Your task to perform on an android device: Open maps Image 0: 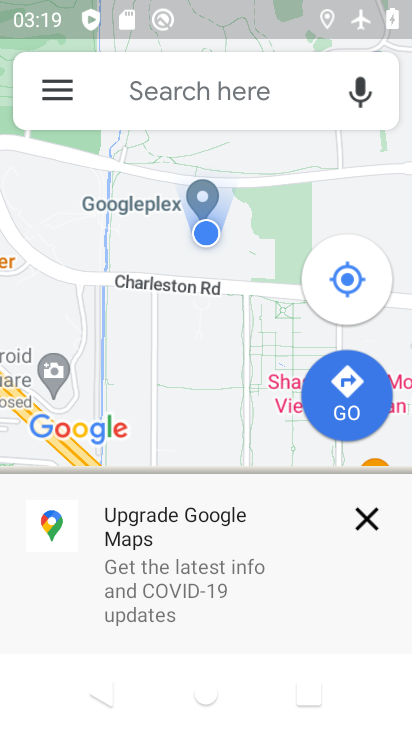
Step 0: press home button
Your task to perform on an android device: Open maps Image 1: 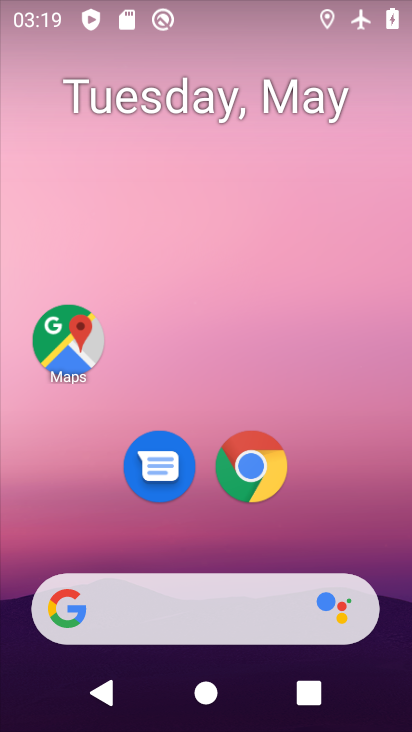
Step 1: drag from (331, 541) to (328, 313)
Your task to perform on an android device: Open maps Image 2: 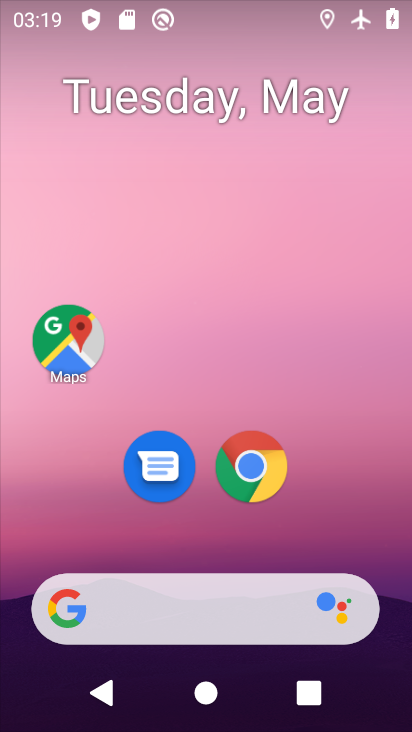
Step 2: drag from (345, 541) to (333, 269)
Your task to perform on an android device: Open maps Image 3: 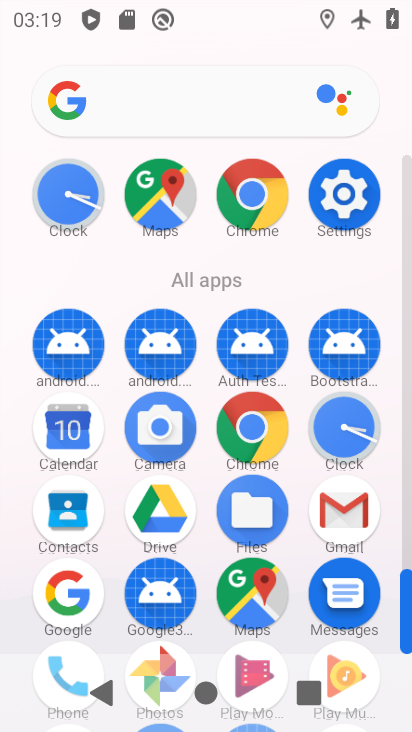
Step 3: click (79, 598)
Your task to perform on an android device: Open maps Image 4: 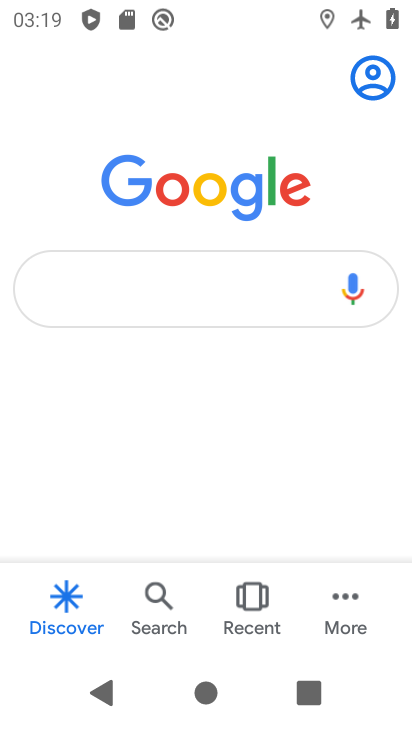
Step 4: press home button
Your task to perform on an android device: Open maps Image 5: 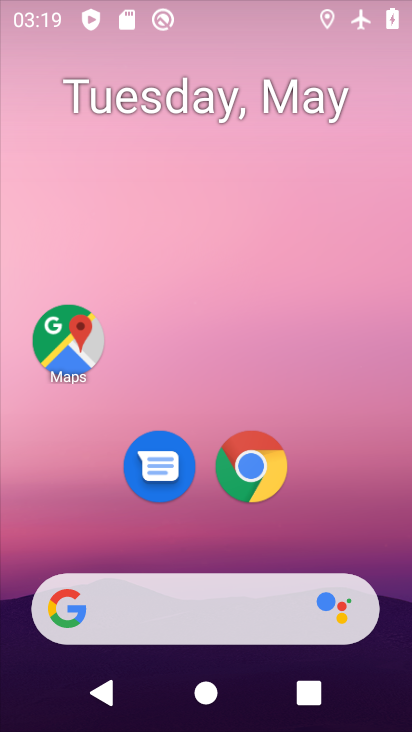
Step 5: drag from (247, 562) to (266, 237)
Your task to perform on an android device: Open maps Image 6: 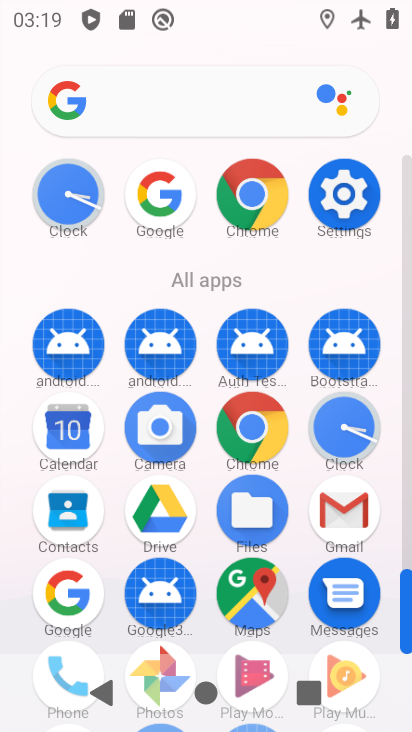
Step 6: click (262, 592)
Your task to perform on an android device: Open maps Image 7: 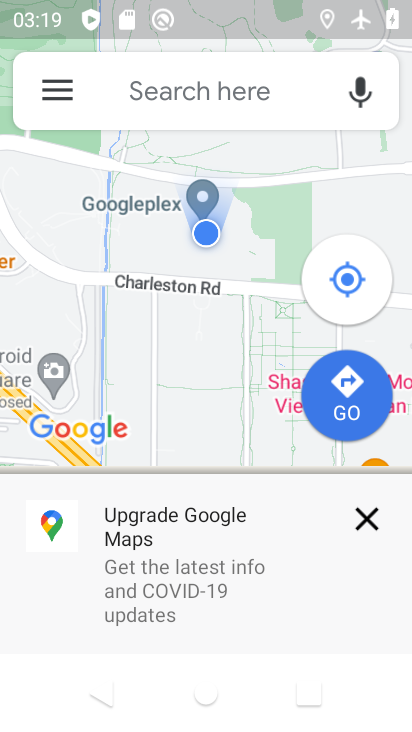
Step 7: click (357, 522)
Your task to perform on an android device: Open maps Image 8: 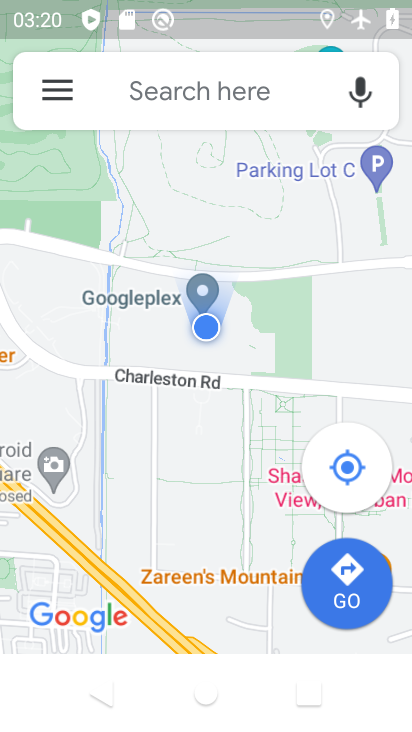
Step 8: task complete